Your task to perform on an android device: uninstall "Google Maps" Image 0: 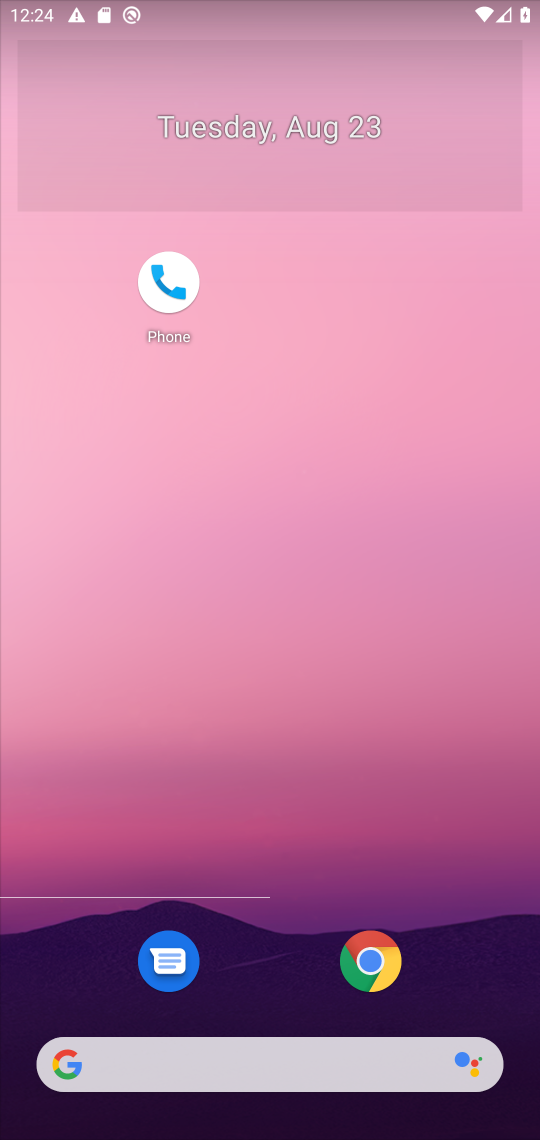
Step 0: drag from (272, 1018) to (216, 227)
Your task to perform on an android device: uninstall "Google Maps" Image 1: 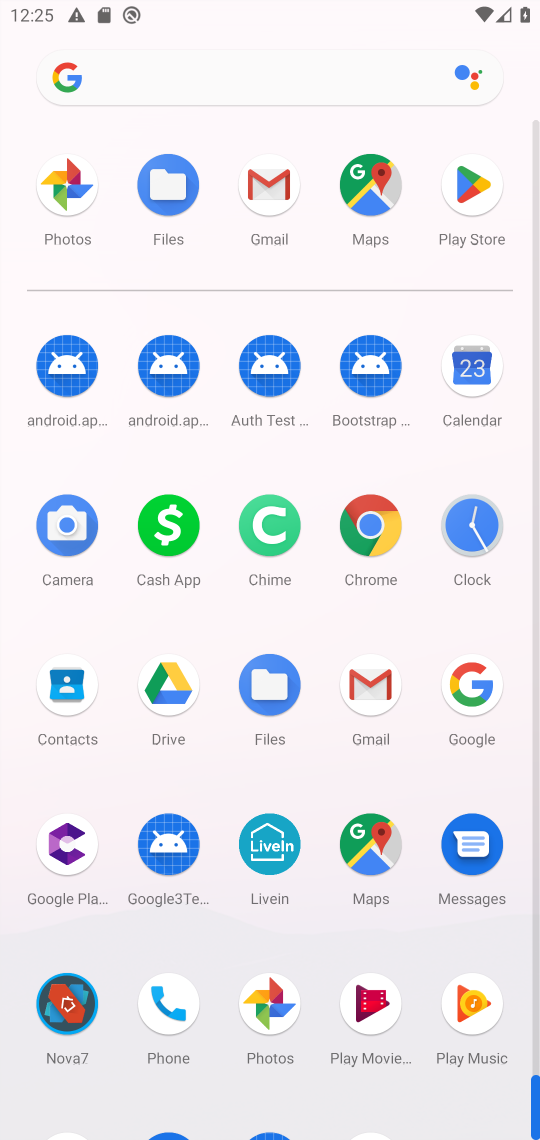
Step 1: drag from (311, 958) to (353, 404)
Your task to perform on an android device: uninstall "Google Maps" Image 2: 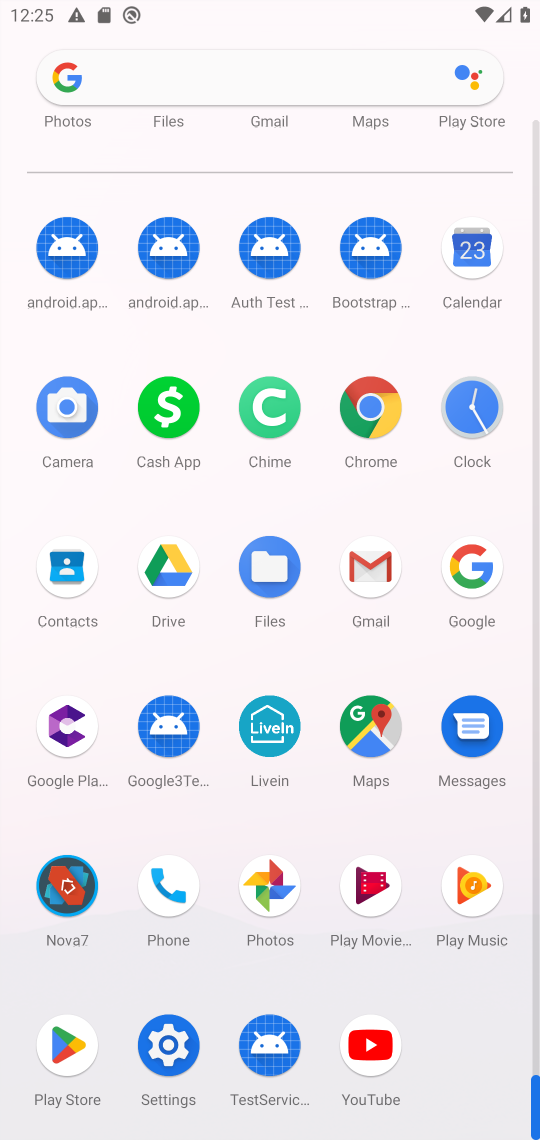
Step 2: click (344, 752)
Your task to perform on an android device: uninstall "Google Maps" Image 3: 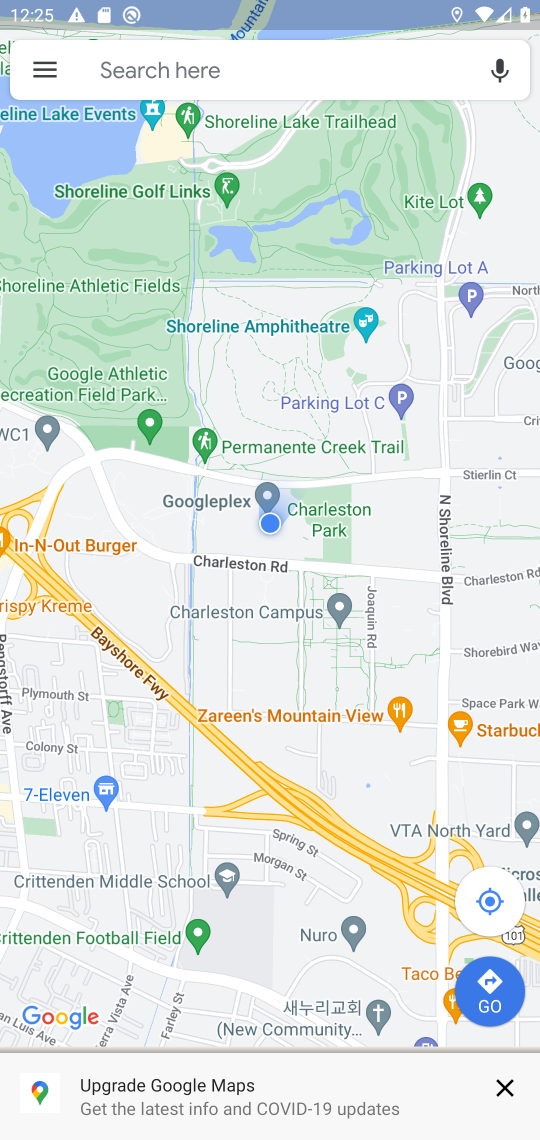
Step 3: task complete